Your task to perform on an android device: Play the last video I watched on Youtube Image 0: 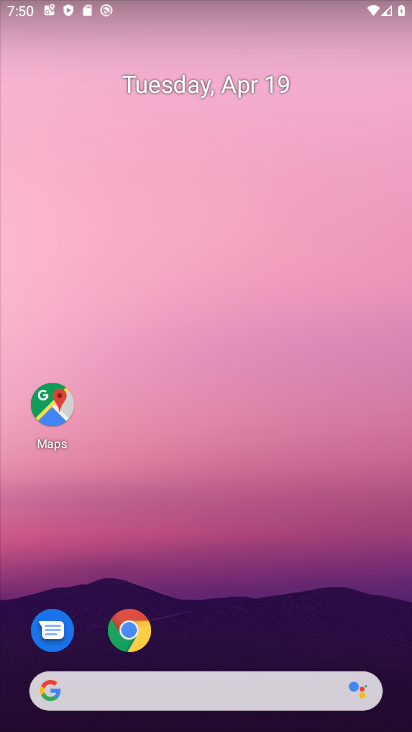
Step 0: drag from (271, 518) to (244, 37)
Your task to perform on an android device: Play the last video I watched on Youtube Image 1: 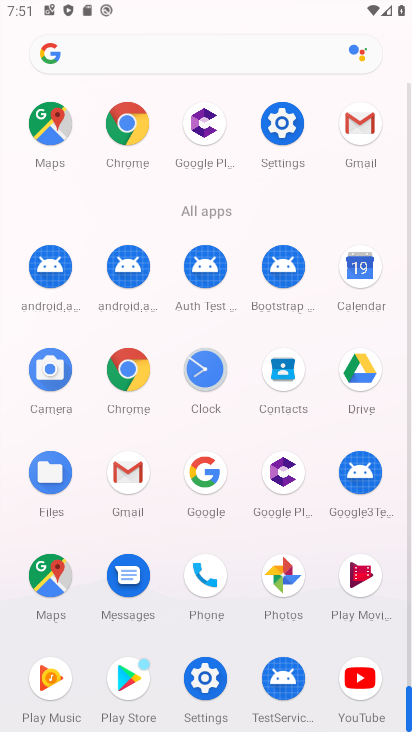
Step 1: click (361, 677)
Your task to perform on an android device: Play the last video I watched on Youtube Image 2: 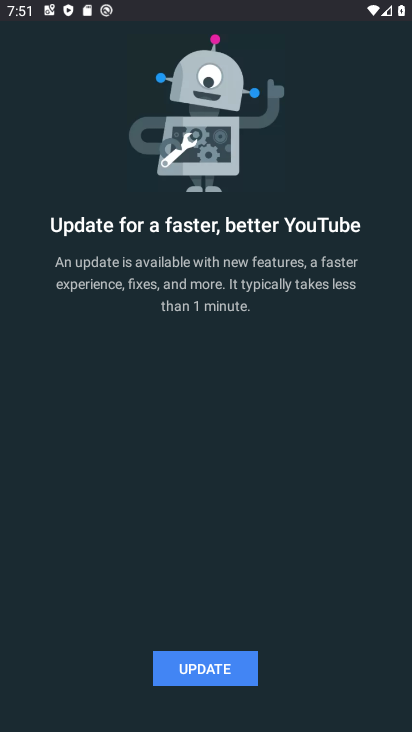
Step 2: click (232, 666)
Your task to perform on an android device: Play the last video I watched on Youtube Image 3: 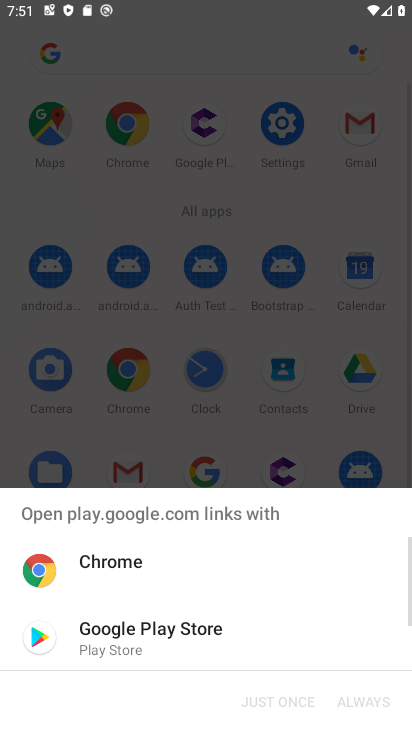
Step 3: click (197, 621)
Your task to perform on an android device: Play the last video I watched on Youtube Image 4: 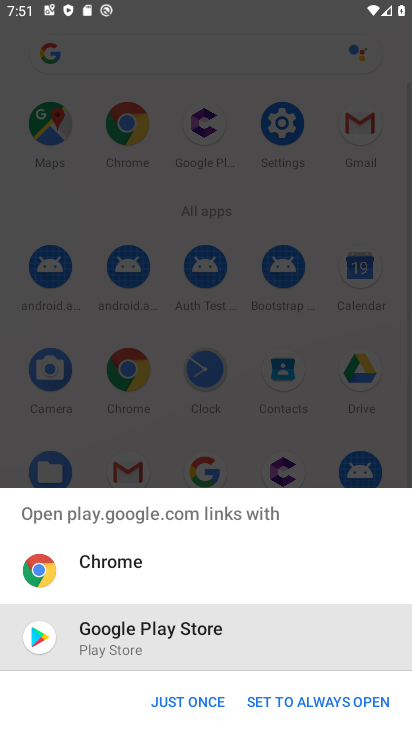
Step 4: click (287, 706)
Your task to perform on an android device: Play the last video I watched on Youtube Image 5: 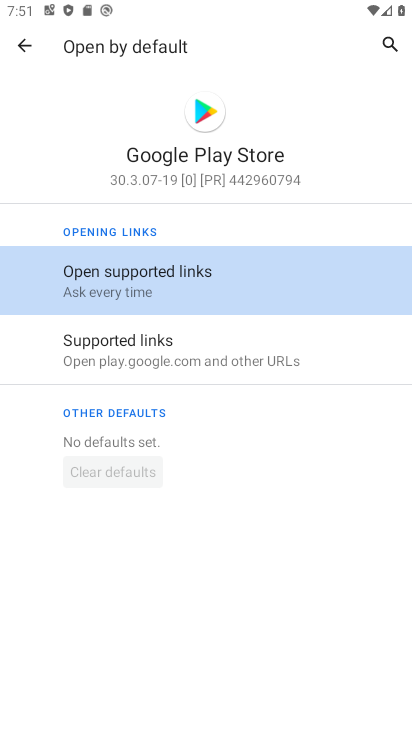
Step 5: press back button
Your task to perform on an android device: Play the last video I watched on Youtube Image 6: 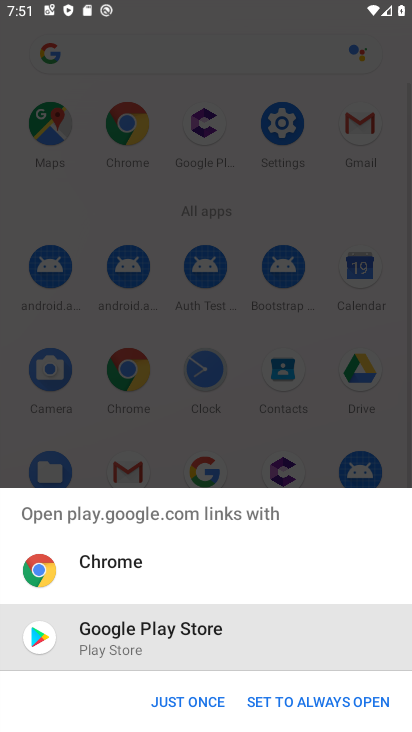
Step 6: click (332, 708)
Your task to perform on an android device: Play the last video I watched on Youtube Image 7: 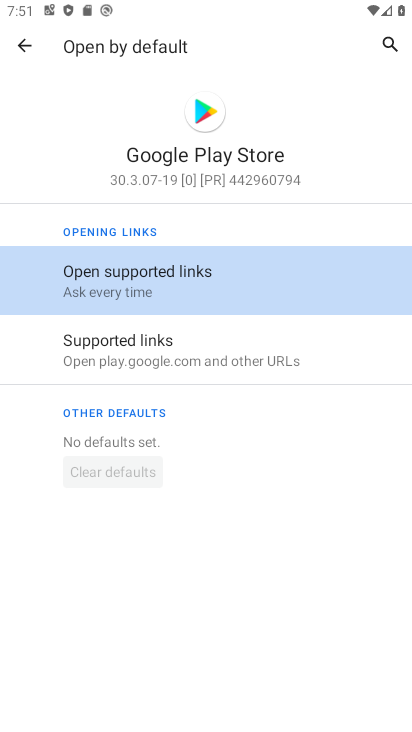
Step 7: click (252, 348)
Your task to perform on an android device: Play the last video I watched on Youtube Image 8: 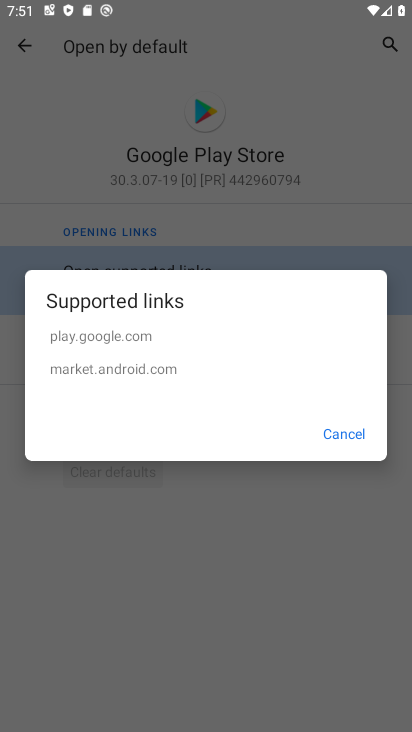
Step 8: click (128, 336)
Your task to perform on an android device: Play the last video I watched on Youtube Image 9: 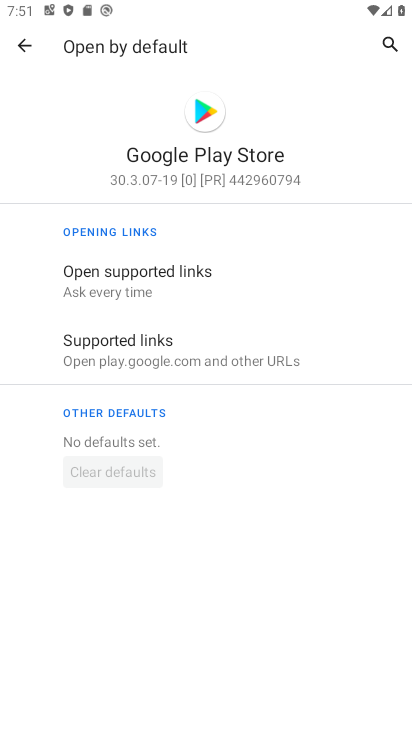
Step 9: press back button
Your task to perform on an android device: Play the last video I watched on Youtube Image 10: 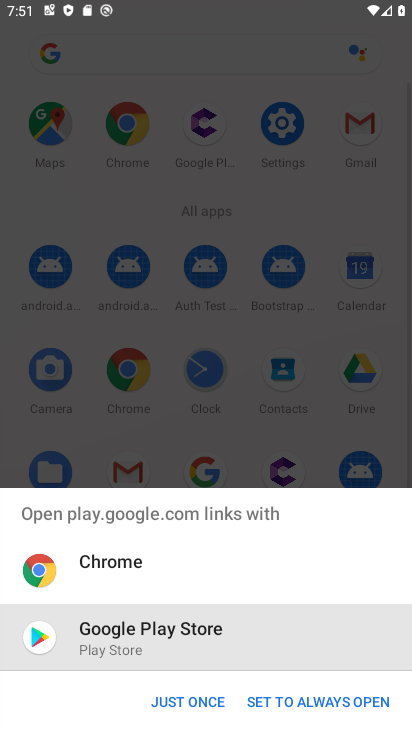
Step 10: click (238, 633)
Your task to perform on an android device: Play the last video I watched on Youtube Image 11: 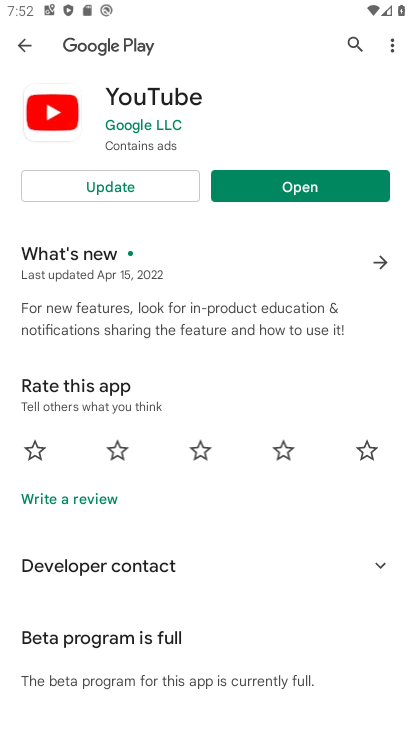
Step 11: click (89, 190)
Your task to perform on an android device: Play the last video I watched on Youtube Image 12: 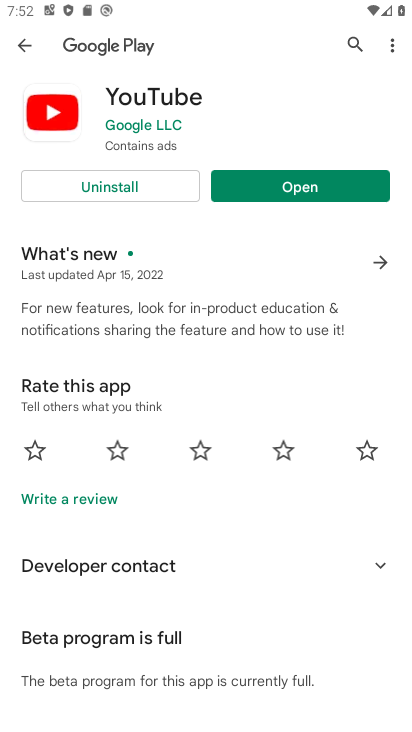
Step 12: click (332, 196)
Your task to perform on an android device: Play the last video I watched on Youtube Image 13: 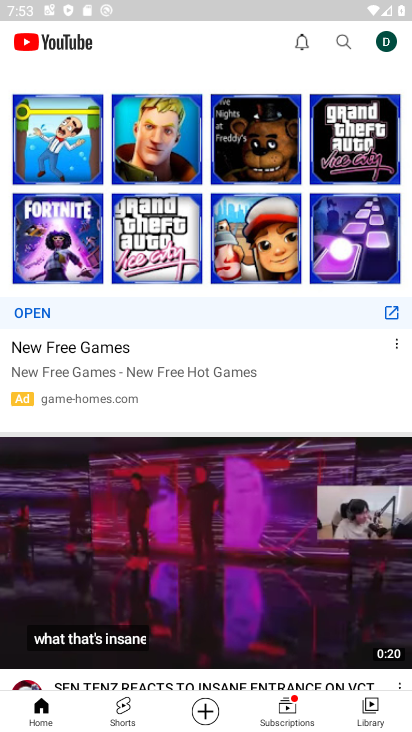
Step 13: click (386, 708)
Your task to perform on an android device: Play the last video I watched on Youtube Image 14: 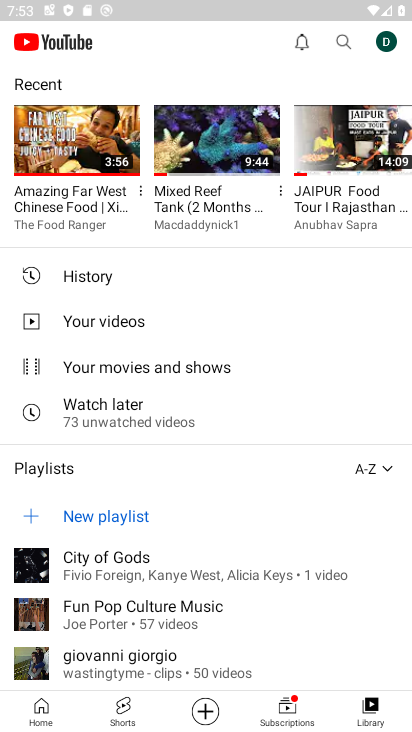
Step 14: click (90, 149)
Your task to perform on an android device: Play the last video I watched on Youtube Image 15: 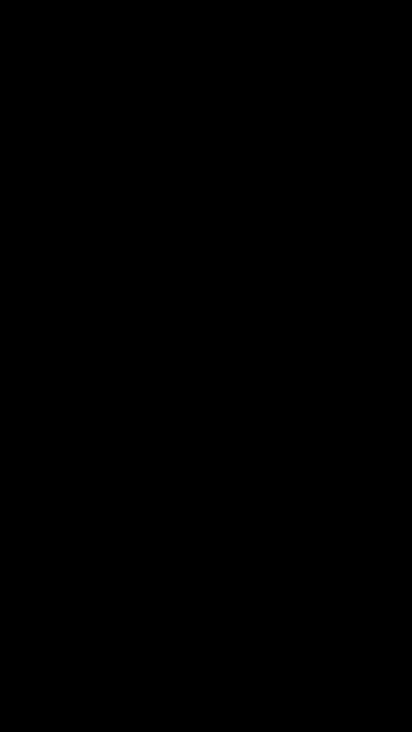
Step 15: task complete